Your task to perform on an android device: see sites visited before in the chrome app Image 0: 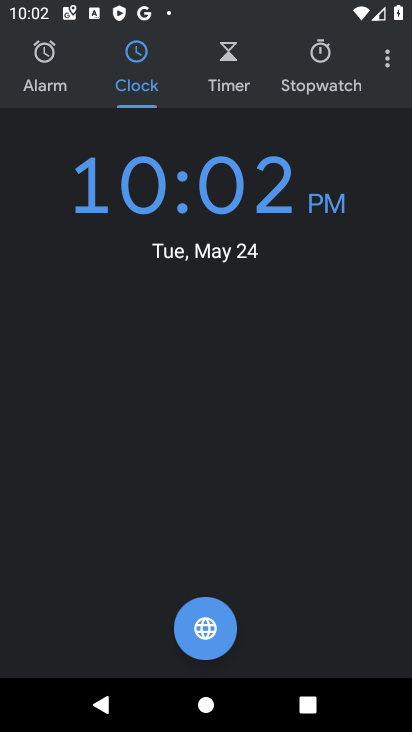
Step 0: press home button
Your task to perform on an android device: see sites visited before in the chrome app Image 1: 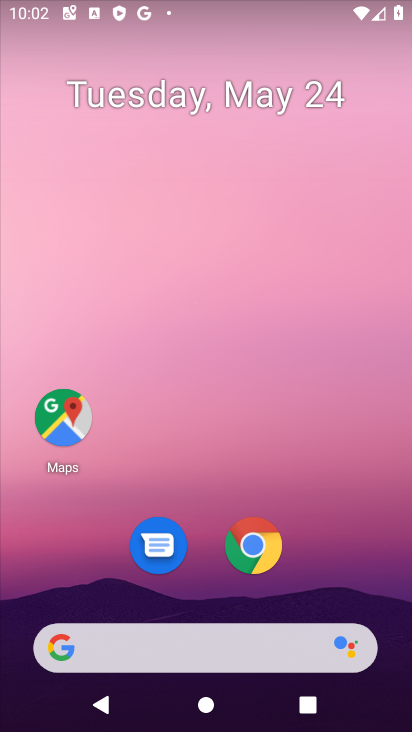
Step 1: click (240, 552)
Your task to perform on an android device: see sites visited before in the chrome app Image 2: 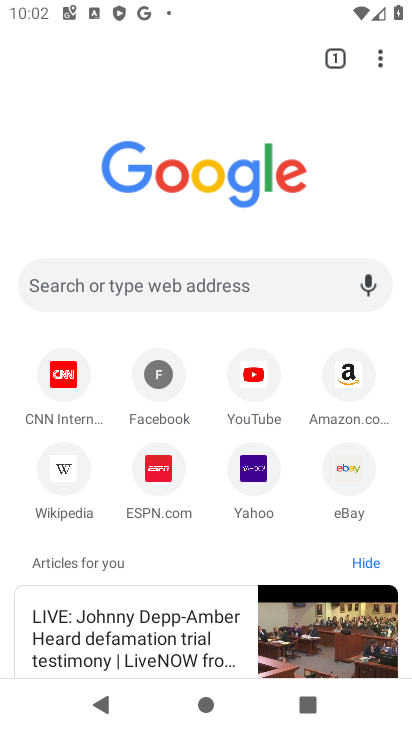
Step 2: click (376, 59)
Your task to perform on an android device: see sites visited before in the chrome app Image 3: 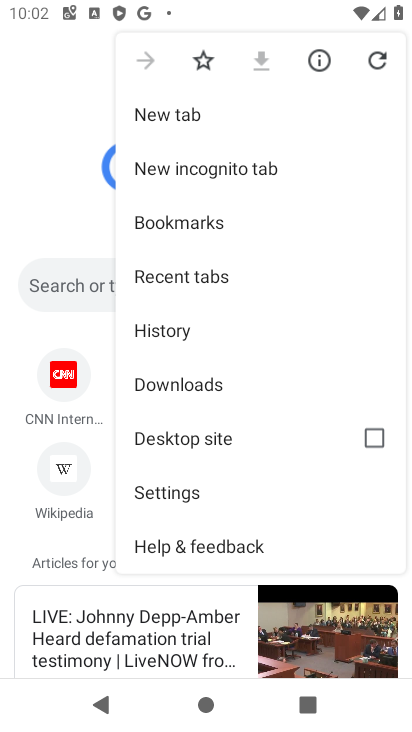
Step 3: click (221, 271)
Your task to perform on an android device: see sites visited before in the chrome app Image 4: 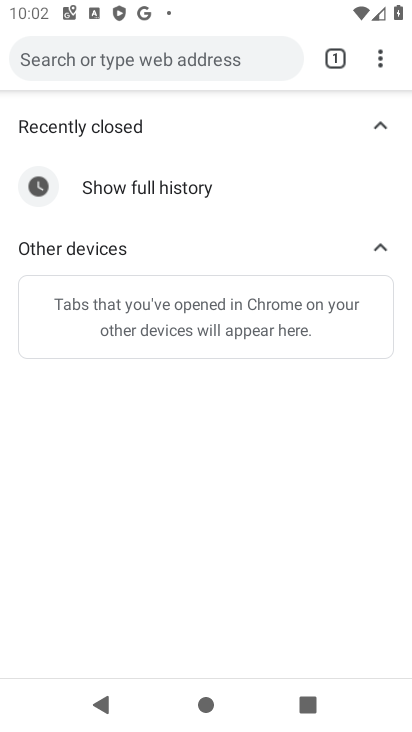
Step 4: task complete